Your task to perform on an android device: turn off picture-in-picture Image 0: 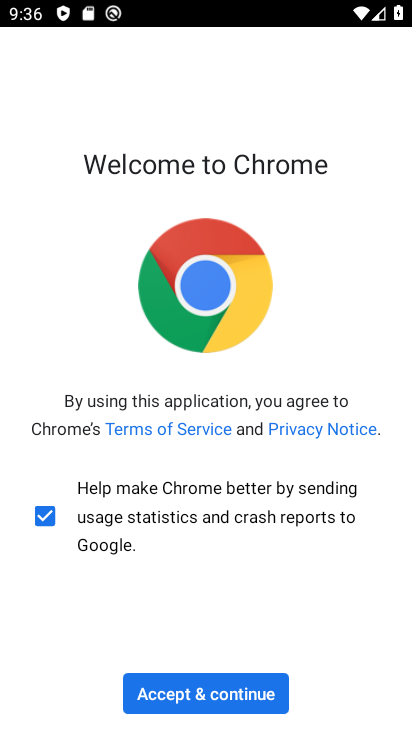
Step 0: click (170, 698)
Your task to perform on an android device: turn off picture-in-picture Image 1: 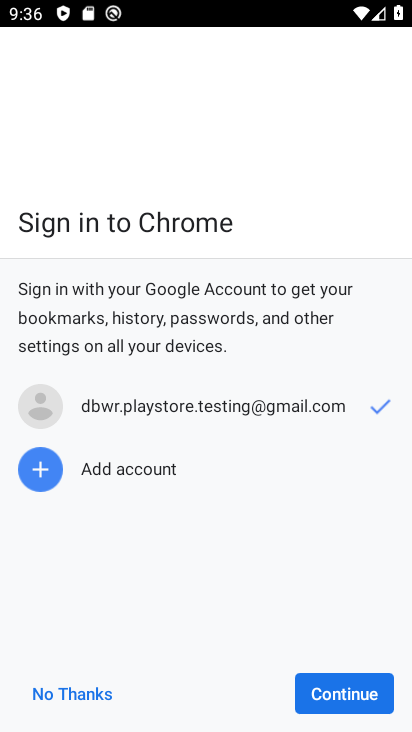
Step 1: click (332, 703)
Your task to perform on an android device: turn off picture-in-picture Image 2: 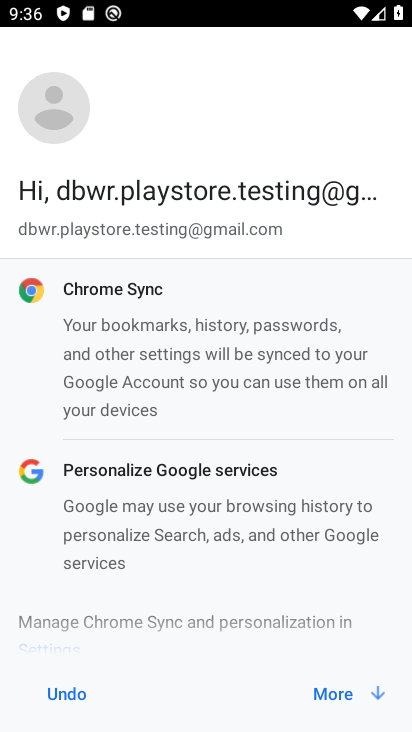
Step 2: press back button
Your task to perform on an android device: turn off picture-in-picture Image 3: 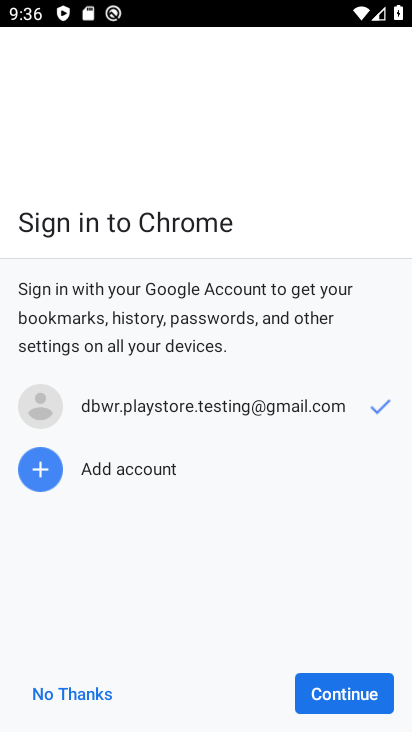
Step 3: press back button
Your task to perform on an android device: turn off picture-in-picture Image 4: 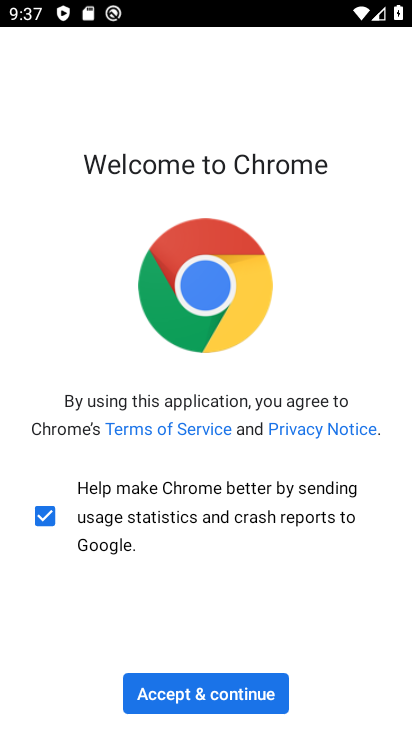
Step 4: press back button
Your task to perform on an android device: turn off picture-in-picture Image 5: 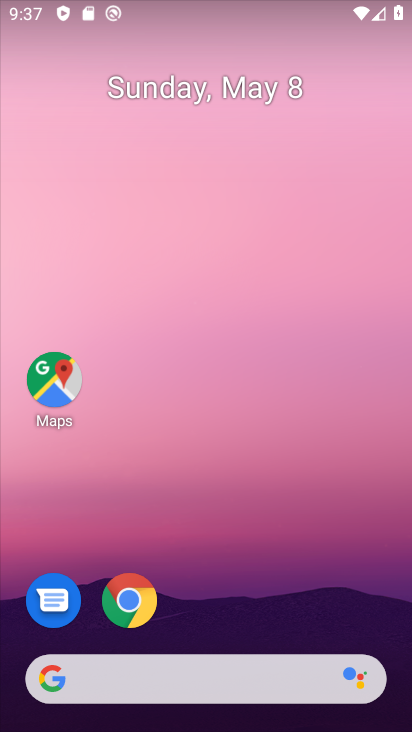
Step 5: click (135, 614)
Your task to perform on an android device: turn off picture-in-picture Image 6: 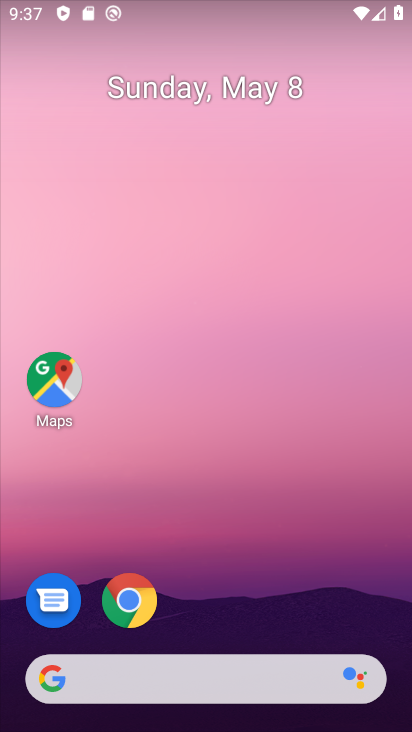
Step 6: click (139, 608)
Your task to perform on an android device: turn off picture-in-picture Image 7: 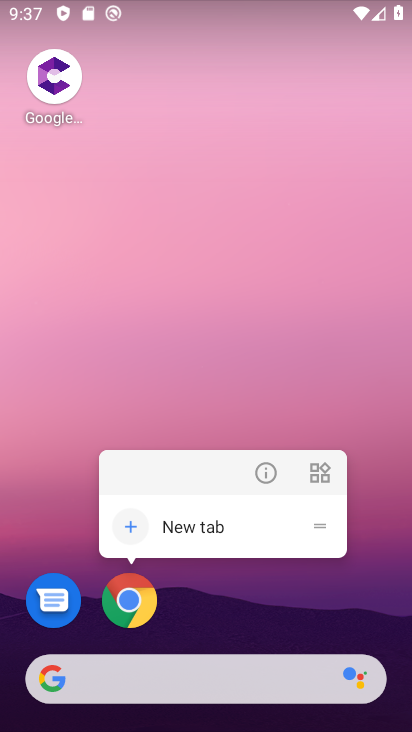
Step 7: click (266, 476)
Your task to perform on an android device: turn off picture-in-picture Image 8: 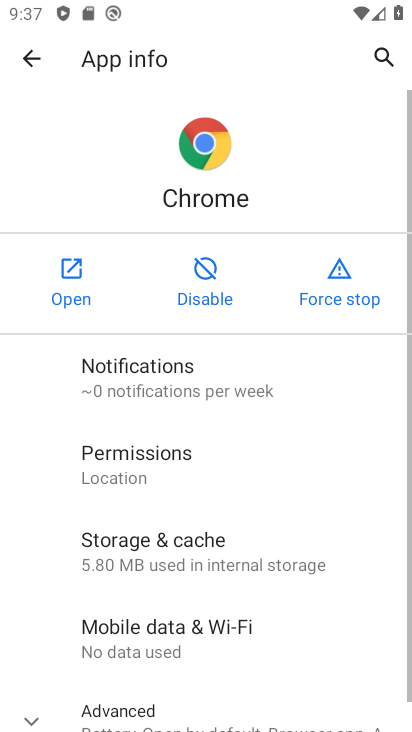
Step 8: drag from (229, 634) to (231, 100)
Your task to perform on an android device: turn off picture-in-picture Image 9: 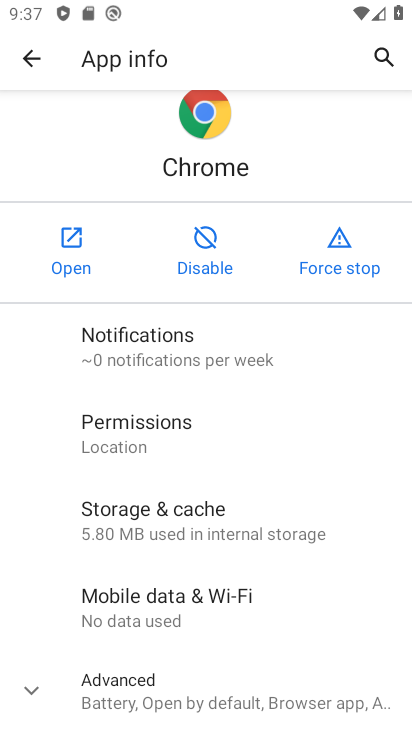
Step 9: click (157, 694)
Your task to perform on an android device: turn off picture-in-picture Image 10: 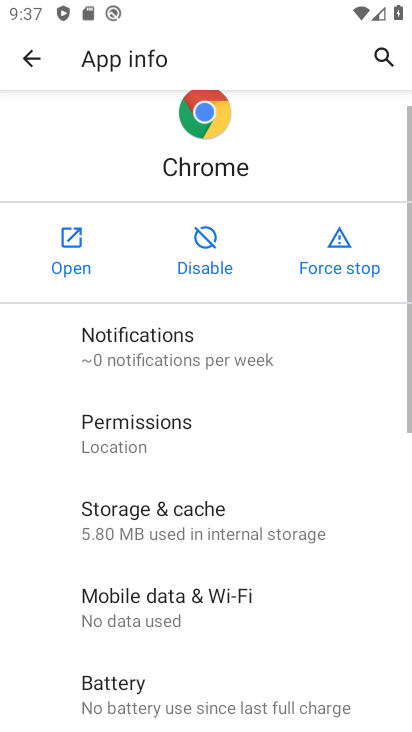
Step 10: drag from (192, 686) to (173, 180)
Your task to perform on an android device: turn off picture-in-picture Image 11: 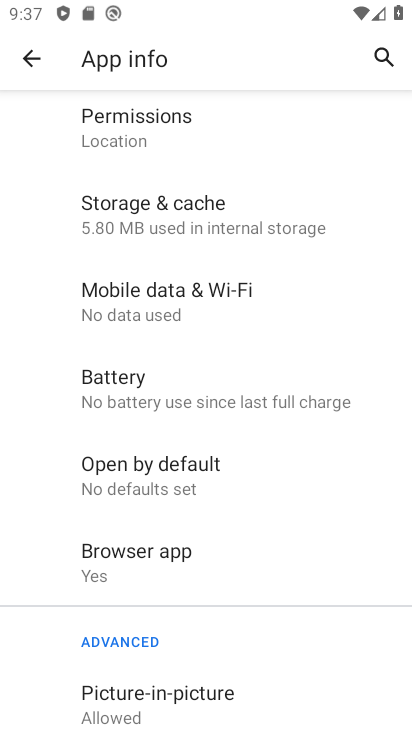
Step 11: click (129, 691)
Your task to perform on an android device: turn off picture-in-picture Image 12: 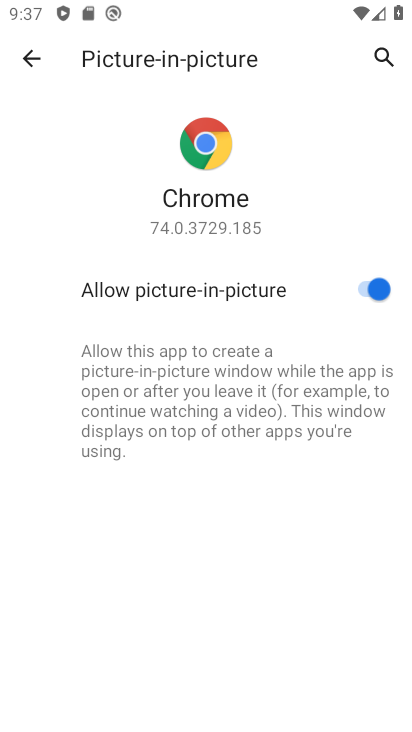
Step 12: click (366, 287)
Your task to perform on an android device: turn off picture-in-picture Image 13: 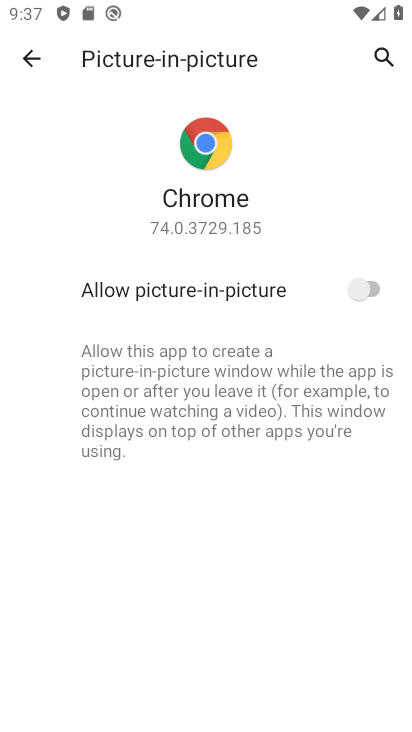
Step 13: task complete